Your task to perform on an android device: change the clock style Image 0: 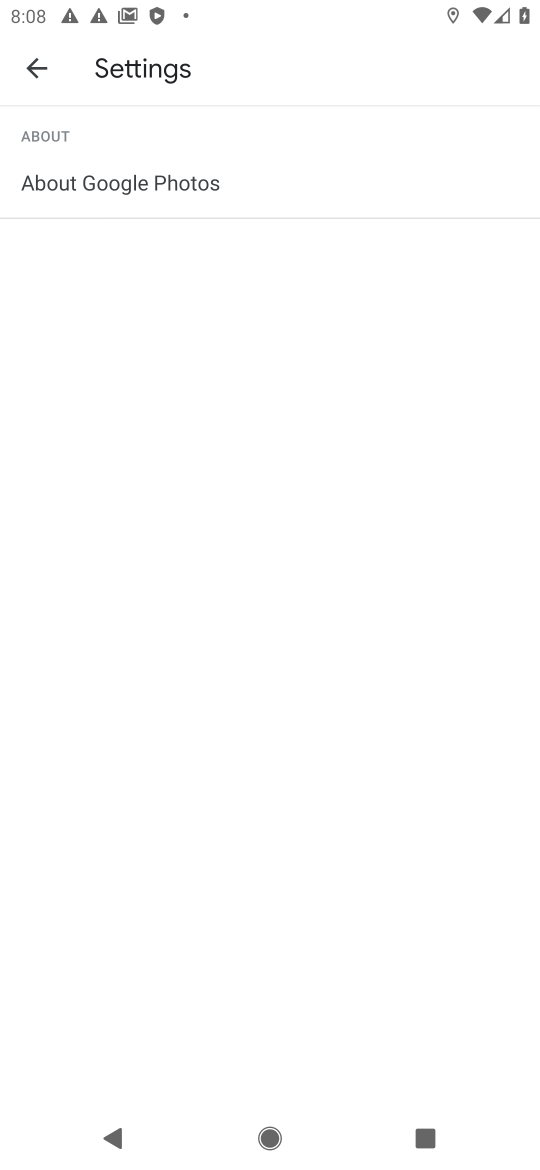
Step 0: press home button
Your task to perform on an android device: change the clock style Image 1: 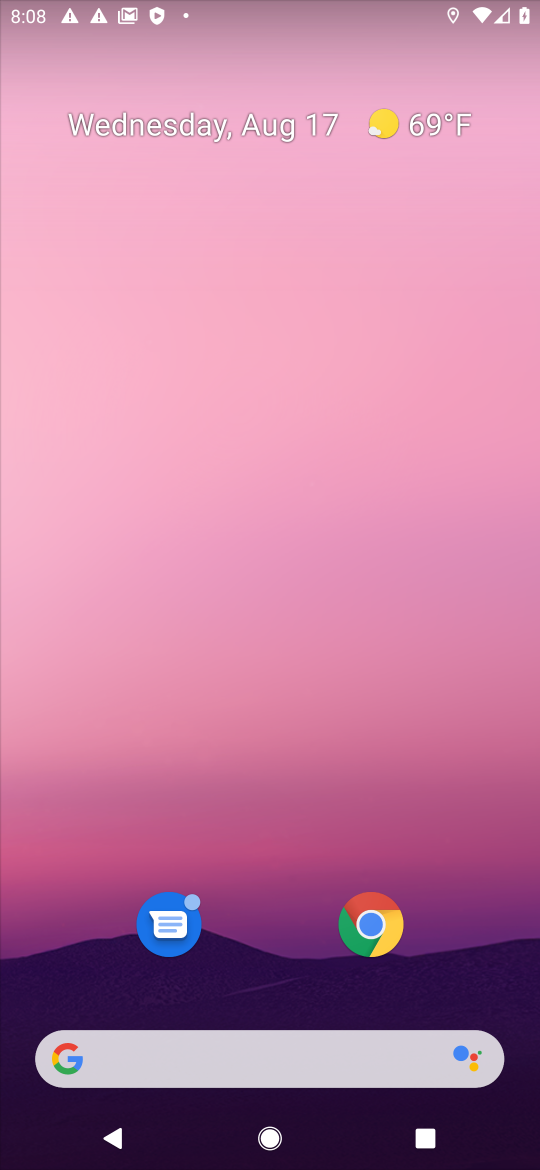
Step 1: drag from (249, 902) to (318, 123)
Your task to perform on an android device: change the clock style Image 2: 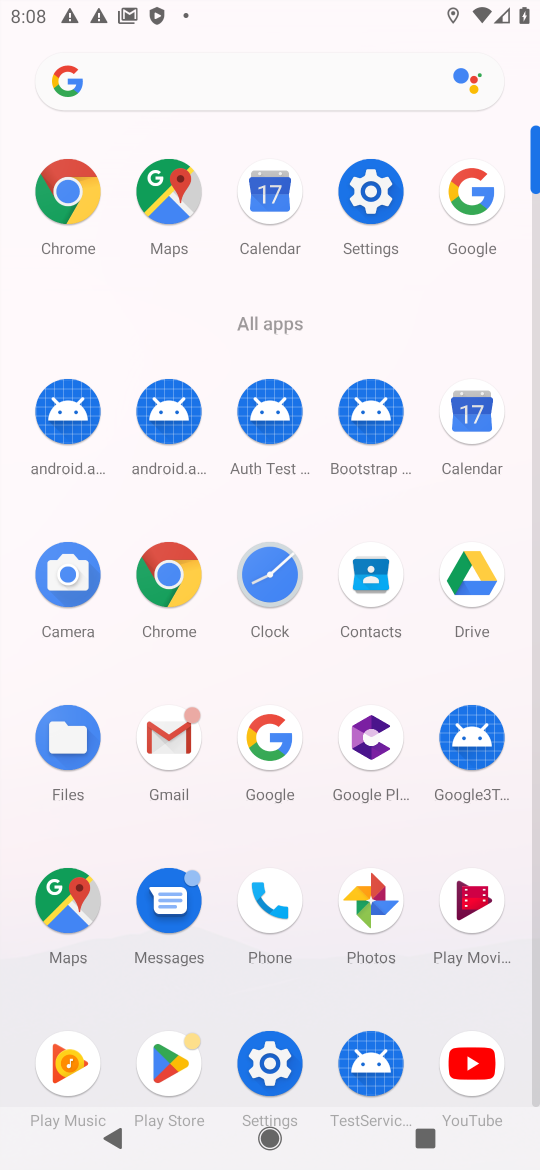
Step 2: click (259, 571)
Your task to perform on an android device: change the clock style Image 3: 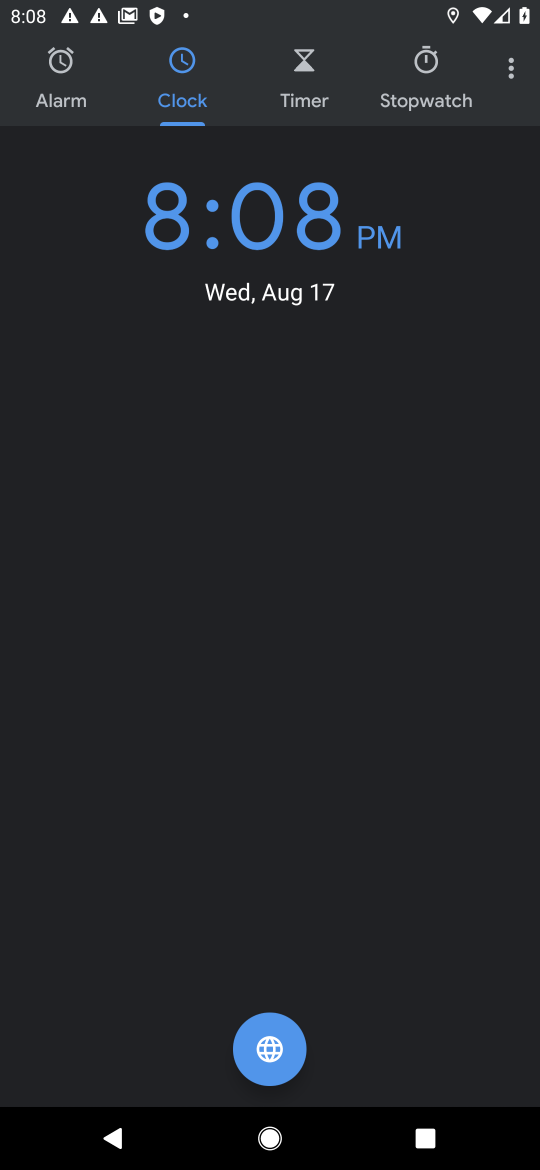
Step 3: click (511, 73)
Your task to perform on an android device: change the clock style Image 4: 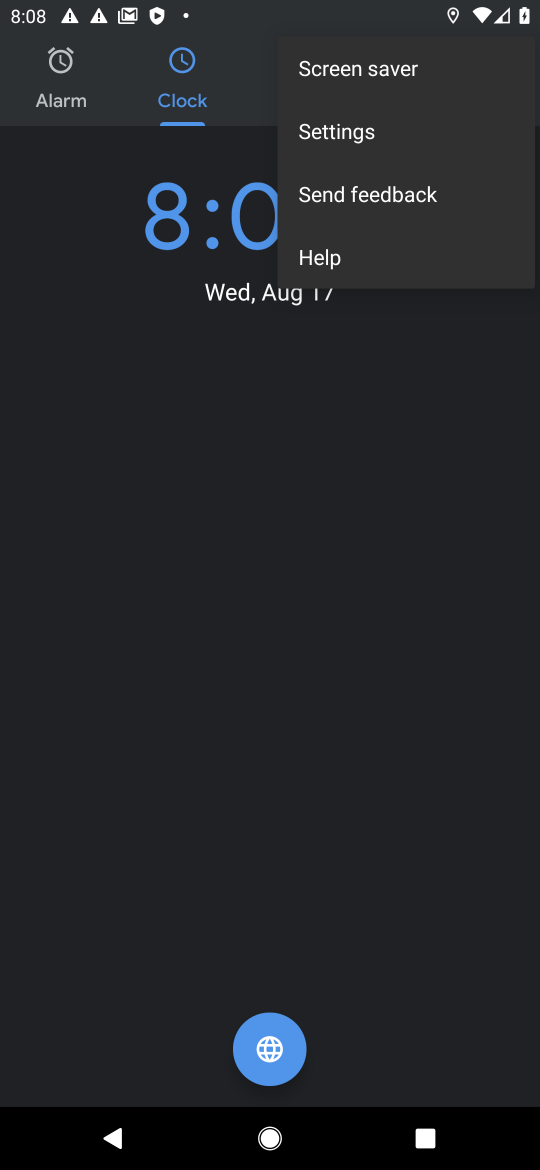
Step 4: click (348, 136)
Your task to perform on an android device: change the clock style Image 5: 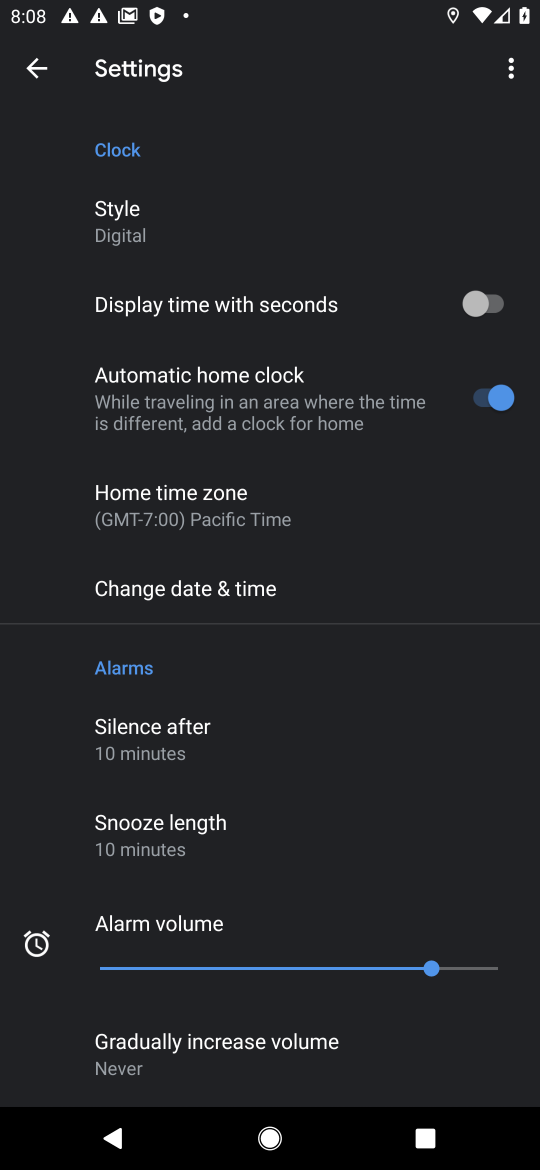
Step 5: click (173, 215)
Your task to perform on an android device: change the clock style Image 6: 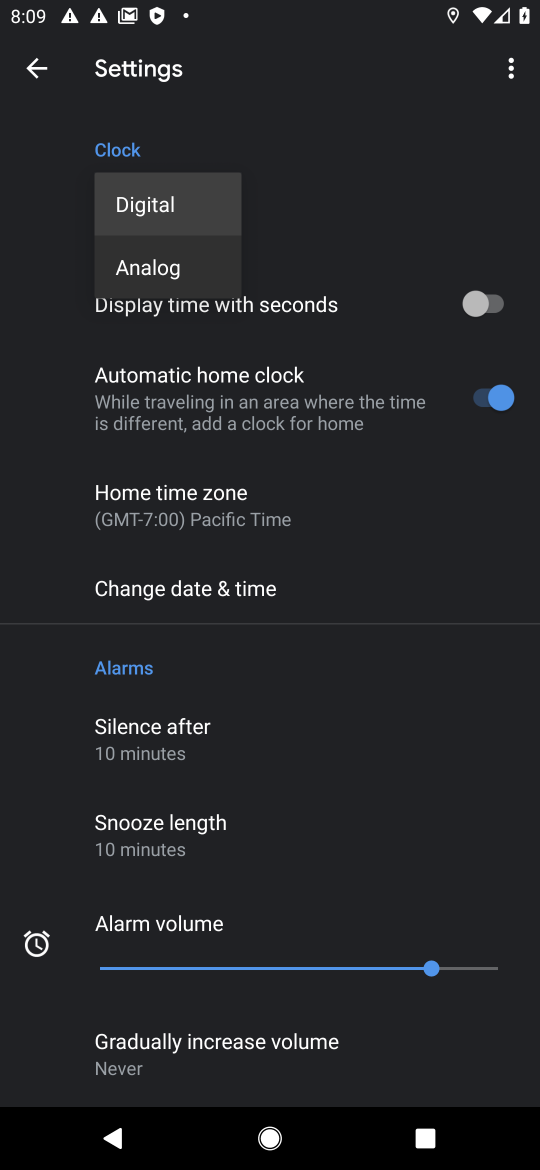
Step 6: click (161, 260)
Your task to perform on an android device: change the clock style Image 7: 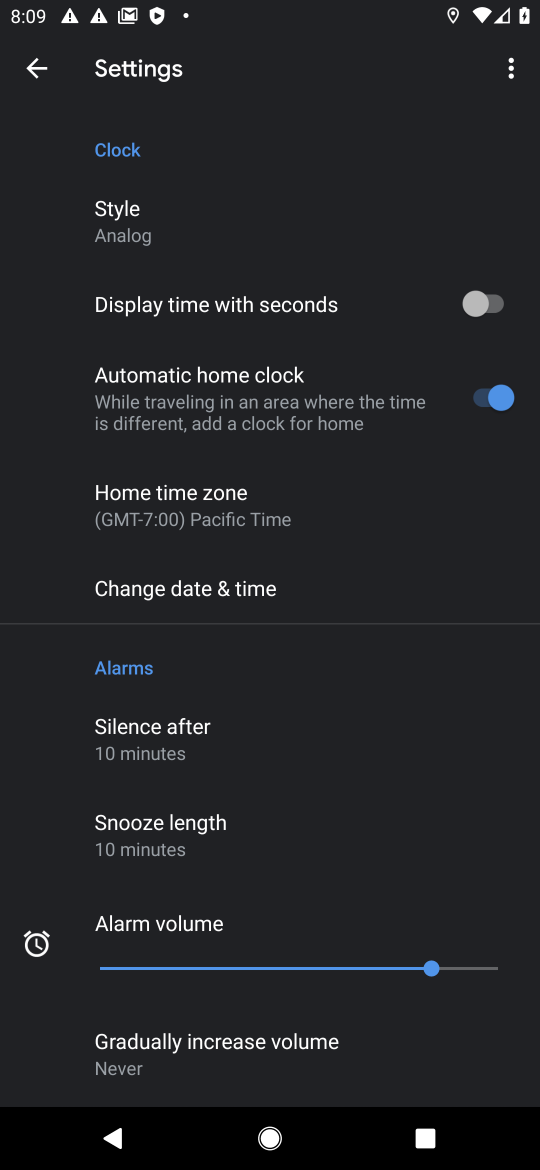
Step 7: task complete